Your task to perform on an android device: Go to CNN.com Image 0: 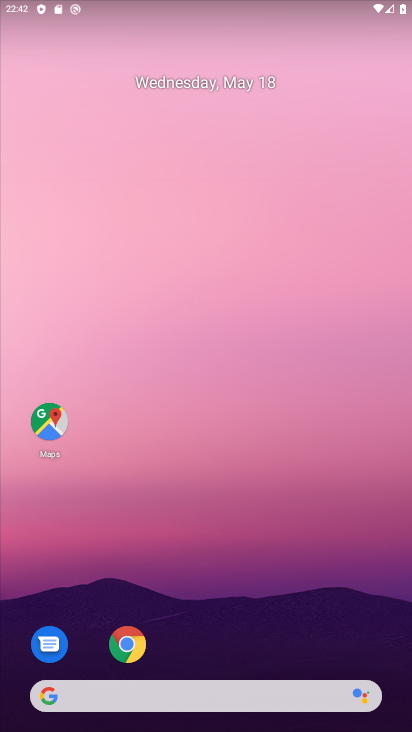
Step 0: drag from (349, 604) to (256, 118)
Your task to perform on an android device: Go to CNN.com Image 1: 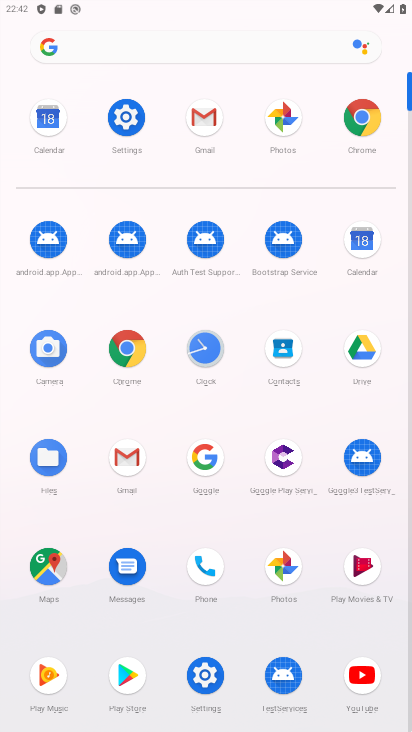
Step 1: click (361, 107)
Your task to perform on an android device: Go to CNN.com Image 2: 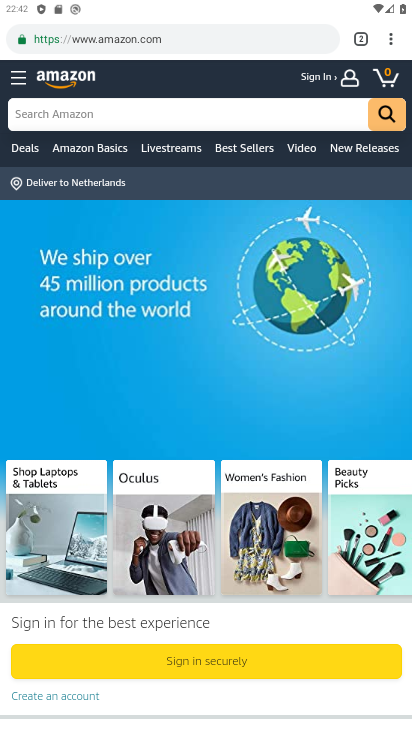
Step 2: click (162, 29)
Your task to perform on an android device: Go to CNN.com Image 3: 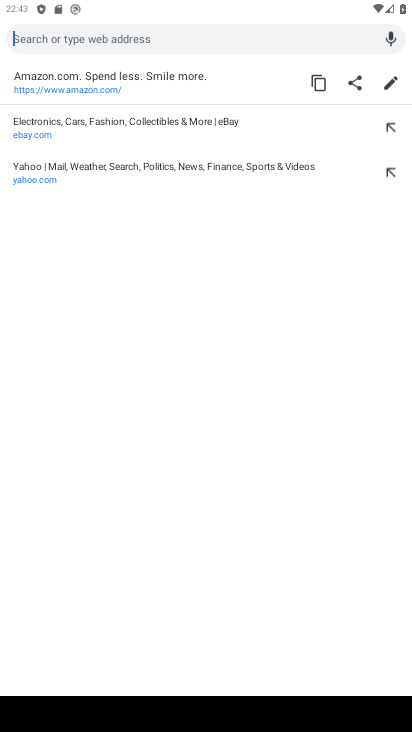
Step 3: type "cnn.com"
Your task to perform on an android device: Go to CNN.com Image 4: 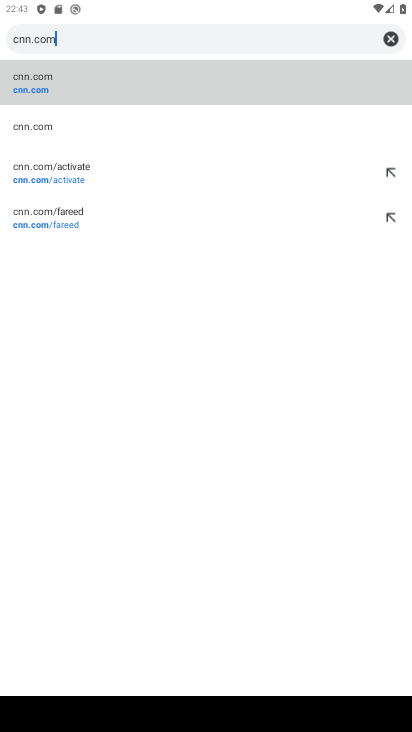
Step 4: click (37, 94)
Your task to perform on an android device: Go to CNN.com Image 5: 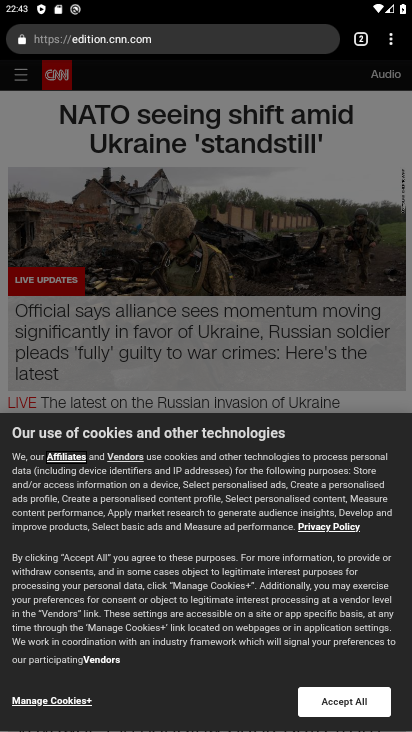
Step 5: task complete